Your task to perform on an android device: Do I have any events tomorrow? Image 0: 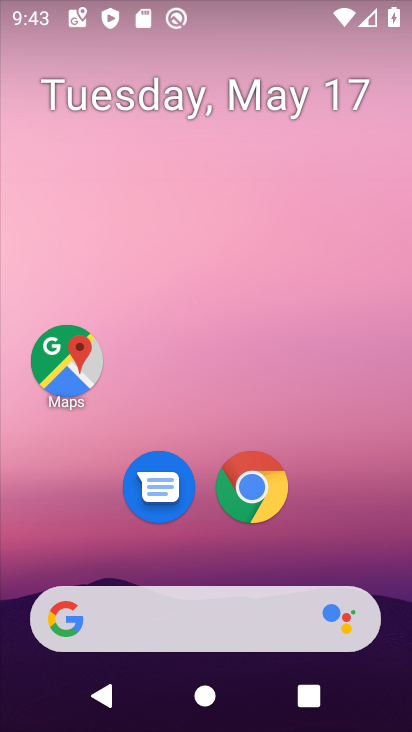
Step 0: drag from (276, 656) to (364, 139)
Your task to perform on an android device: Do I have any events tomorrow? Image 1: 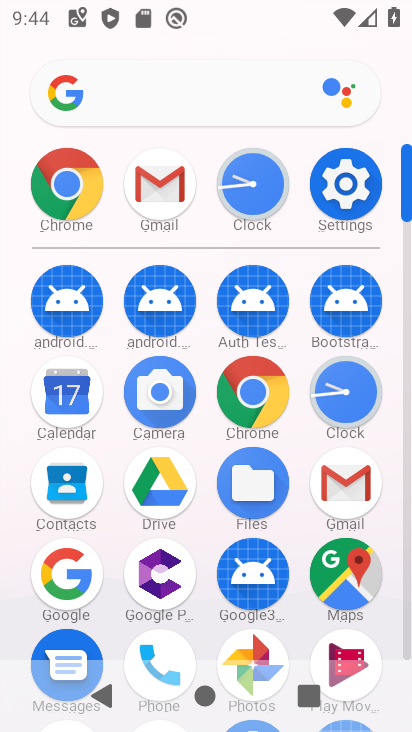
Step 1: click (49, 392)
Your task to perform on an android device: Do I have any events tomorrow? Image 2: 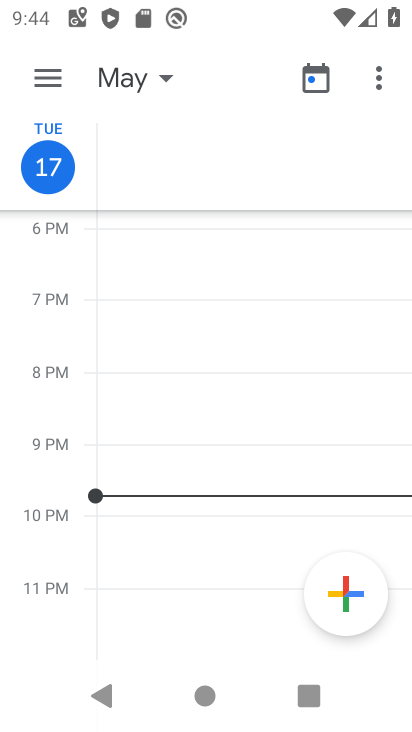
Step 2: click (39, 75)
Your task to perform on an android device: Do I have any events tomorrow? Image 3: 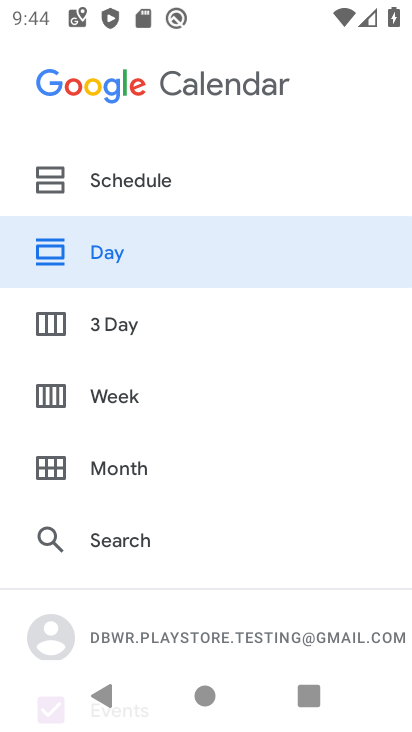
Step 3: click (108, 322)
Your task to perform on an android device: Do I have any events tomorrow? Image 4: 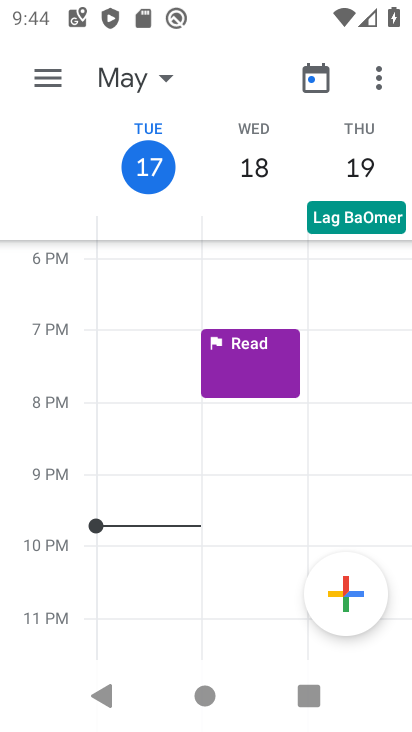
Step 4: click (263, 176)
Your task to perform on an android device: Do I have any events tomorrow? Image 5: 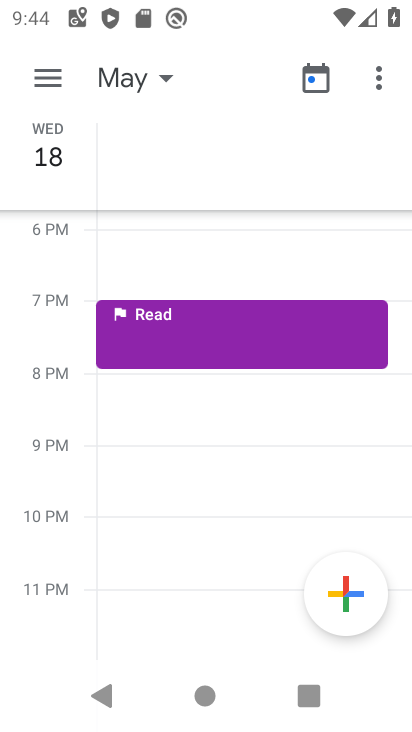
Step 5: task complete